Your task to perform on an android device: Open the stopwatch Image 0: 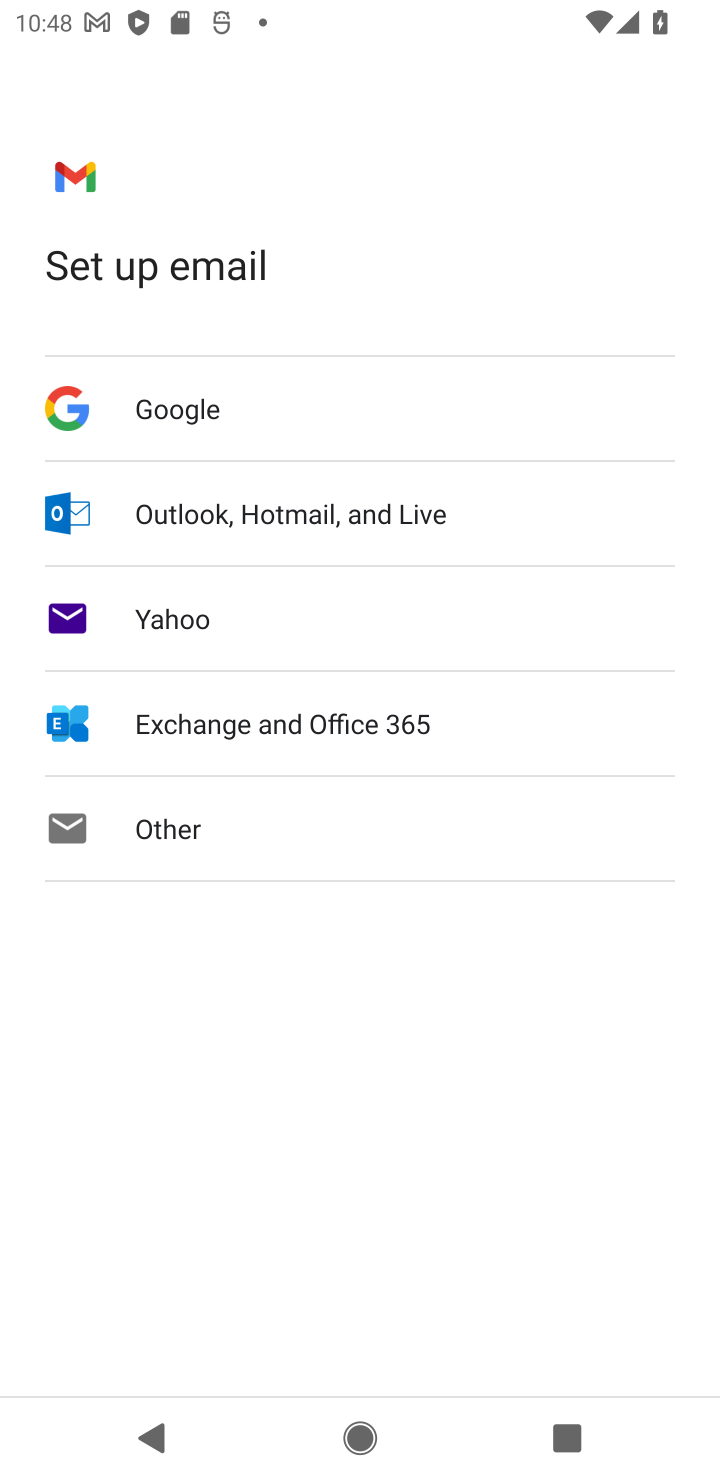
Step 0: press home button
Your task to perform on an android device: Open the stopwatch Image 1: 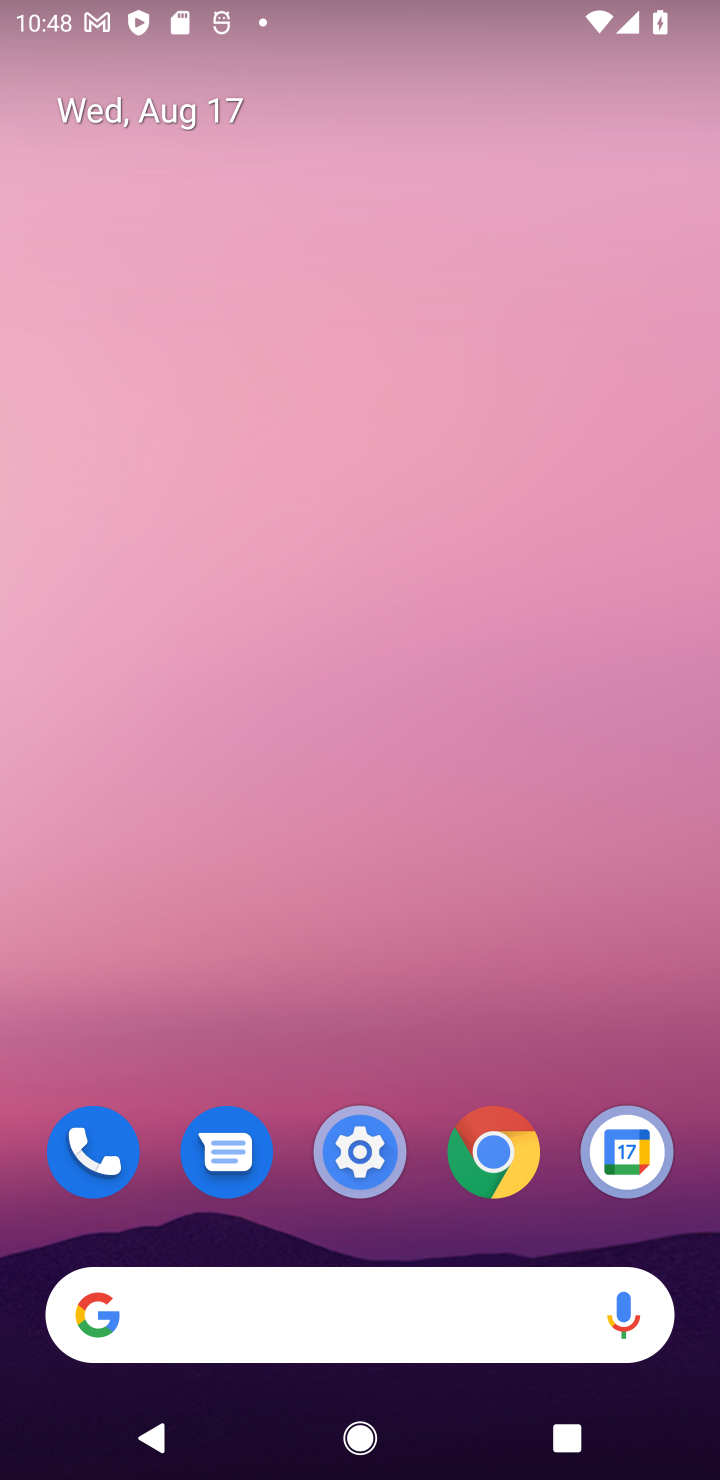
Step 1: drag from (596, 1062) to (280, 77)
Your task to perform on an android device: Open the stopwatch Image 2: 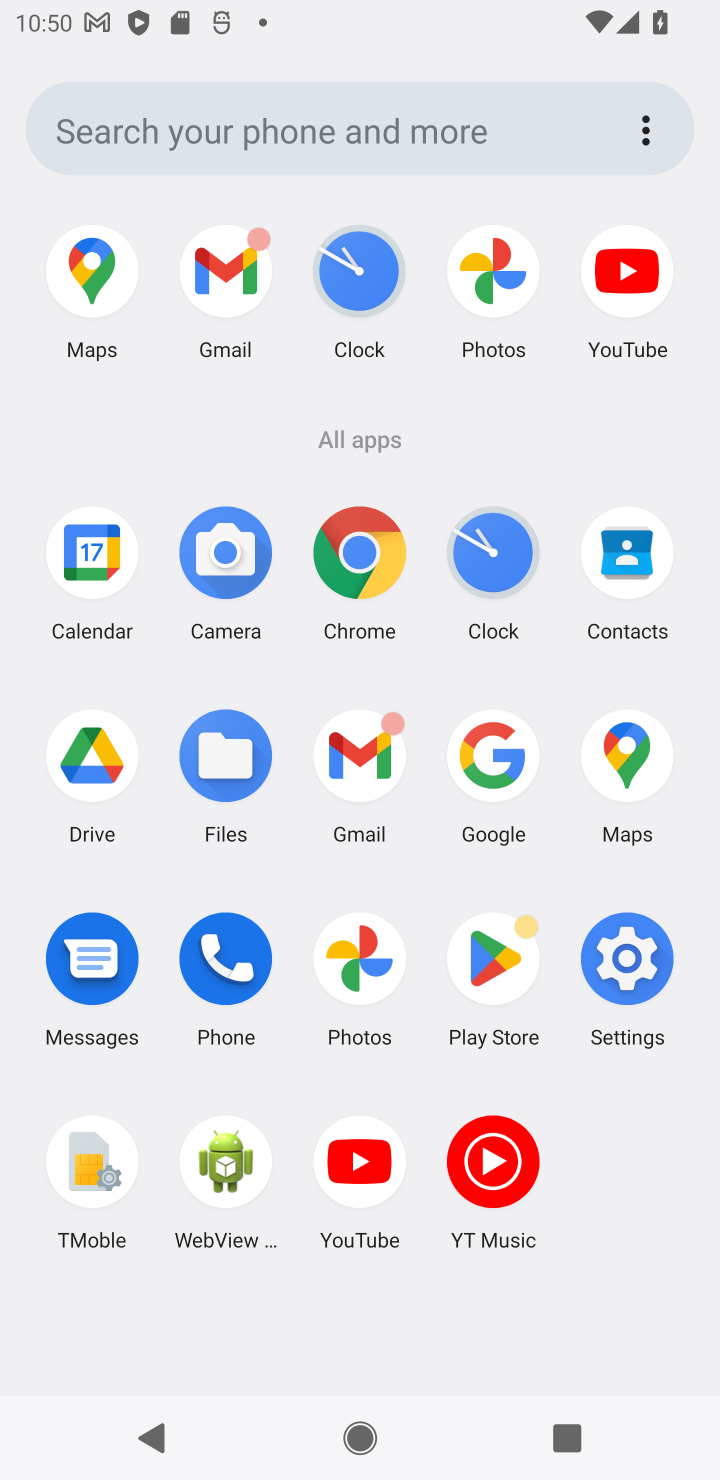
Step 2: click (469, 559)
Your task to perform on an android device: Open the stopwatch Image 3: 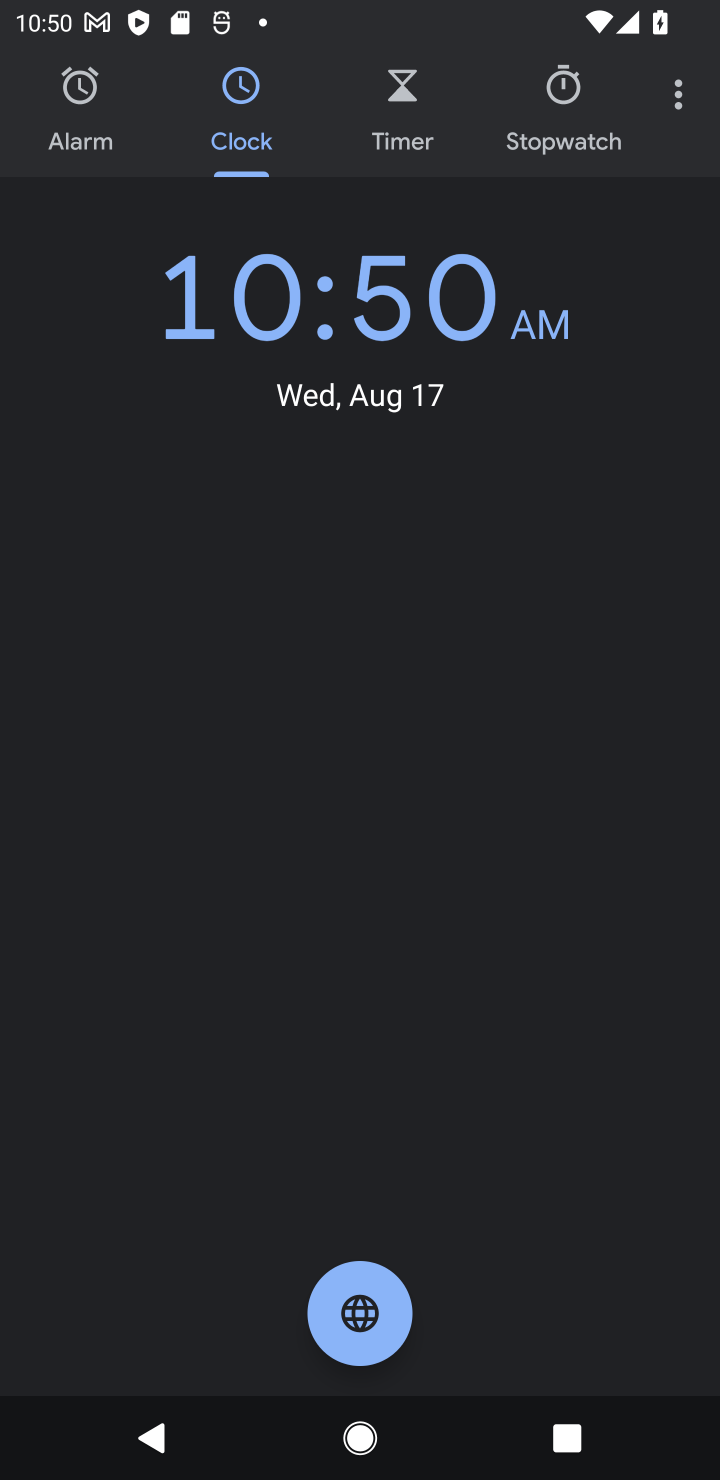
Step 3: click (543, 151)
Your task to perform on an android device: Open the stopwatch Image 4: 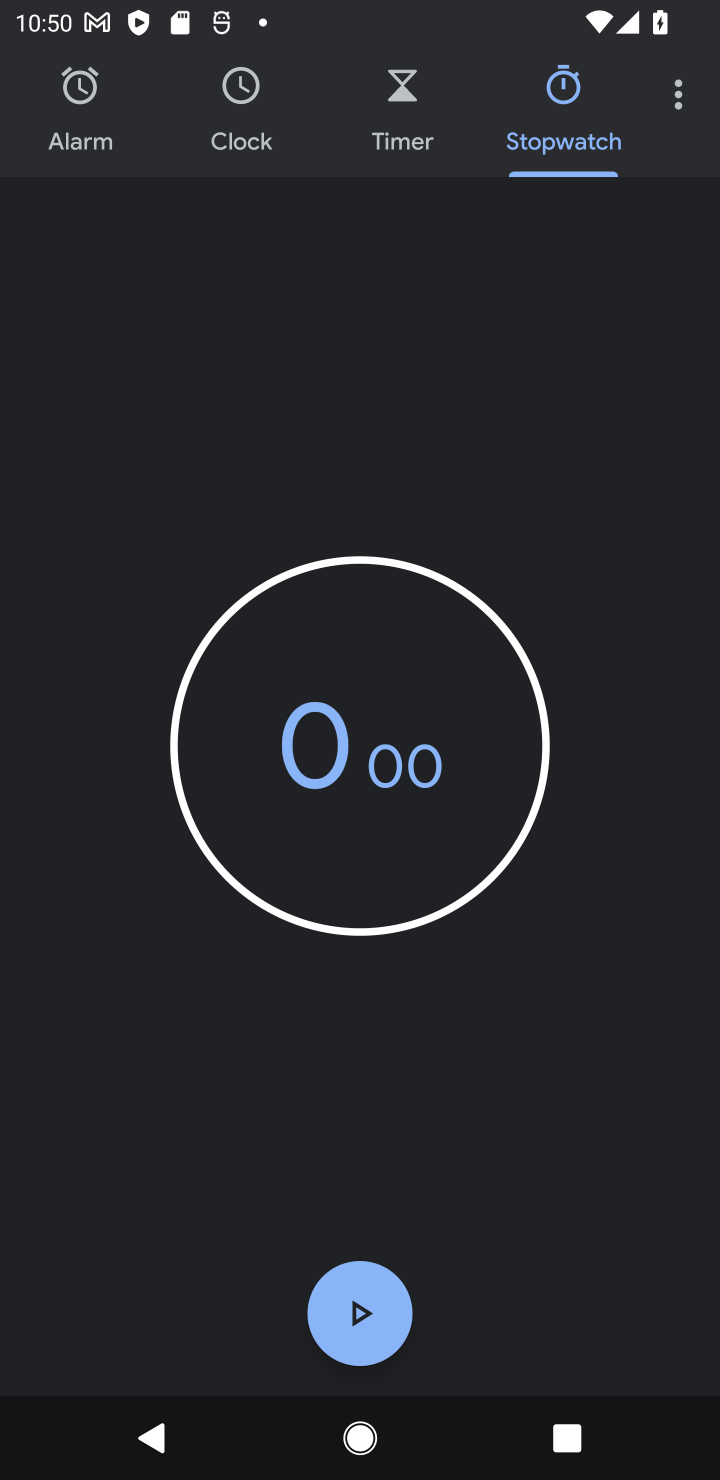
Step 4: task complete